Your task to perform on an android device: turn on improve location accuracy Image 0: 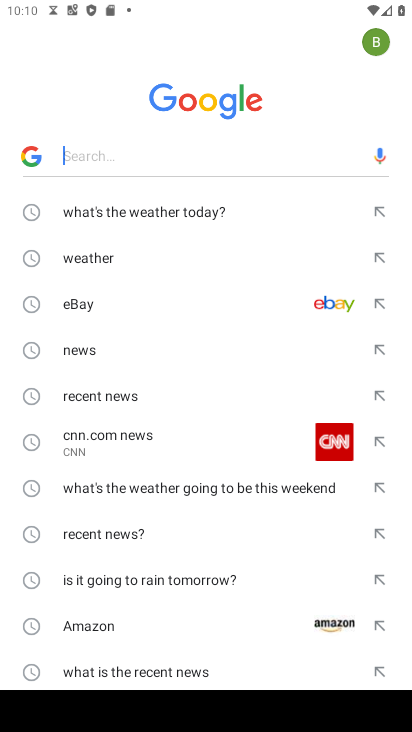
Step 0: press home button
Your task to perform on an android device: turn on improve location accuracy Image 1: 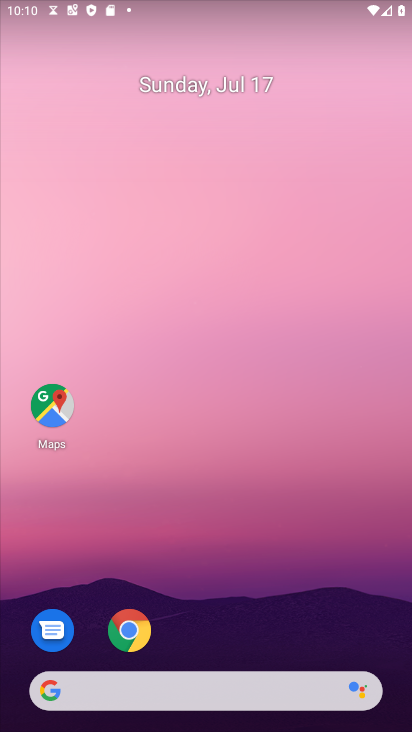
Step 1: drag from (250, 687) to (353, 2)
Your task to perform on an android device: turn on improve location accuracy Image 2: 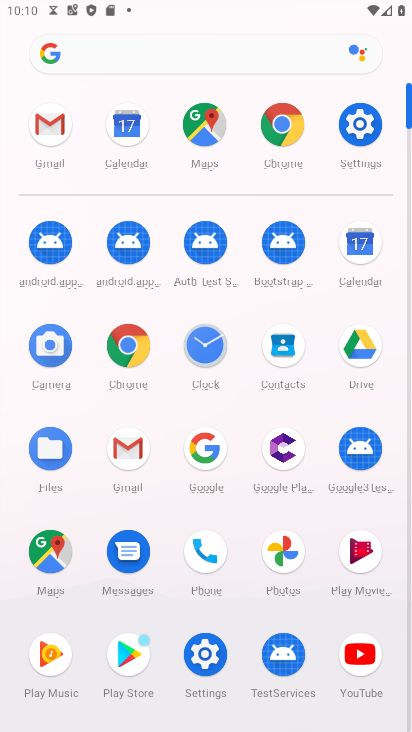
Step 2: click (354, 104)
Your task to perform on an android device: turn on improve location accuracy Image 3: 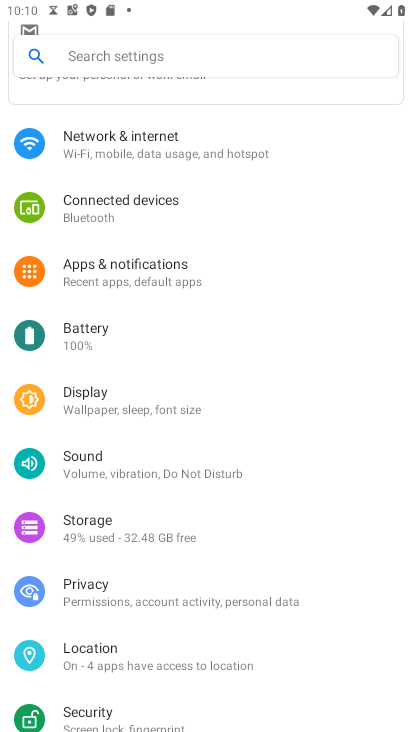
Step 3: click (176, 650)
Your task to perform on an android device: turn on improve location accuracy Image 4: 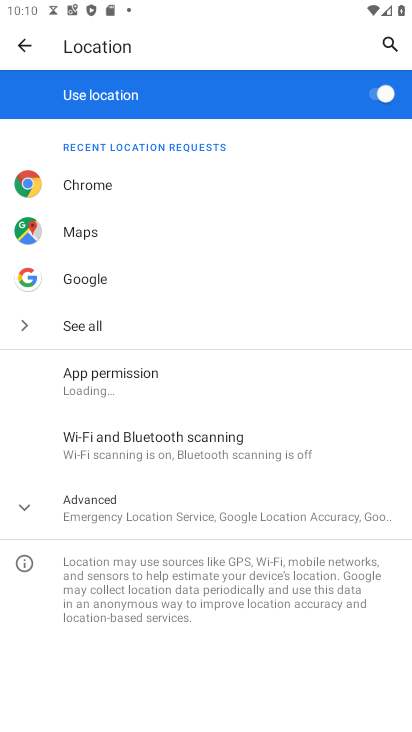
Step 4: click (203, 512)
Your task to perform on an android device: turn on improve location accuracy Image 5: 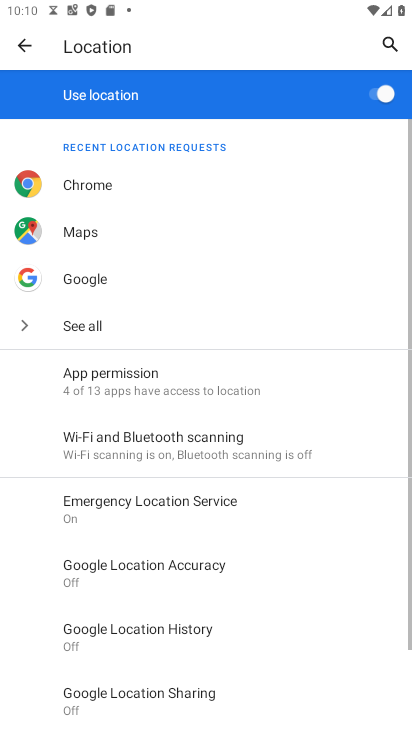
Step 5: click (192, 567)
Your task to perform on an android device: turn on improve location accuracy Image 6: 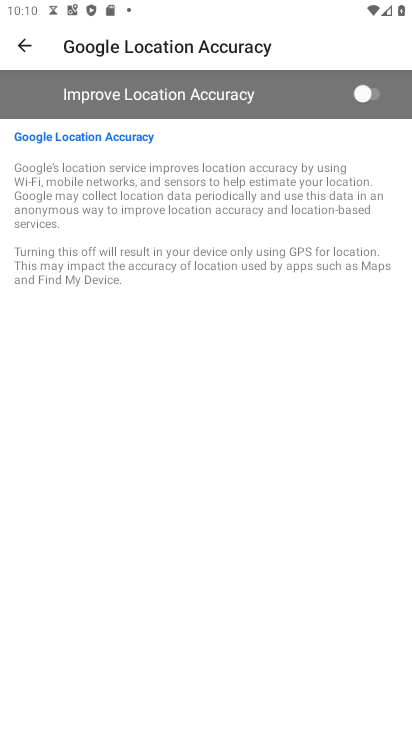
Step 6: click (373, 91)
Your task to perform on an android device: turn on improve location accuracy Image 7: 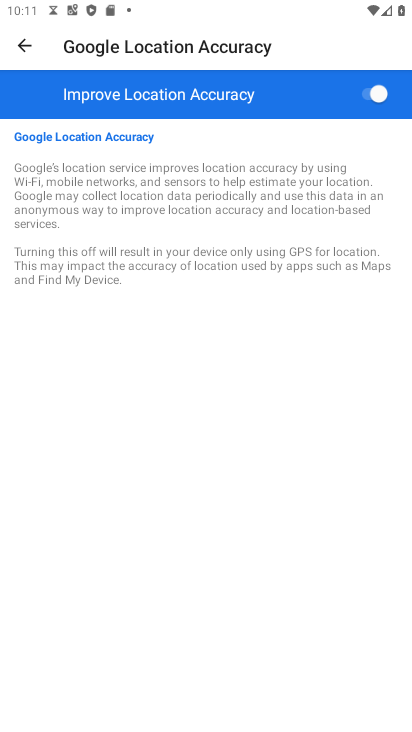
Step 7: task complete